Your task to perform on an android device: Open my contact list Image 0: 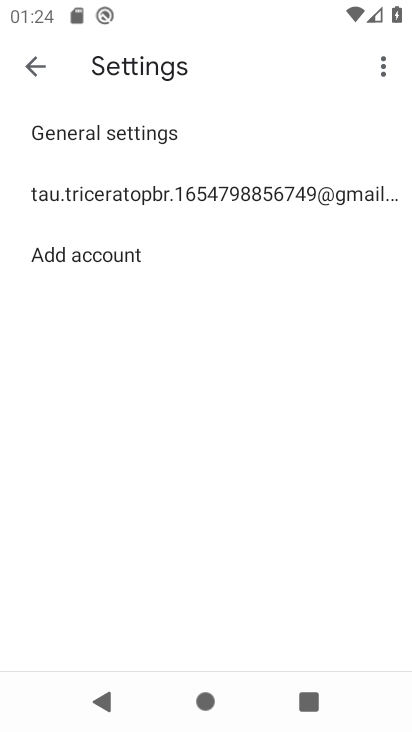
Step 0: press home button
Your task to perform on an android device: Open my contact list Image 1: 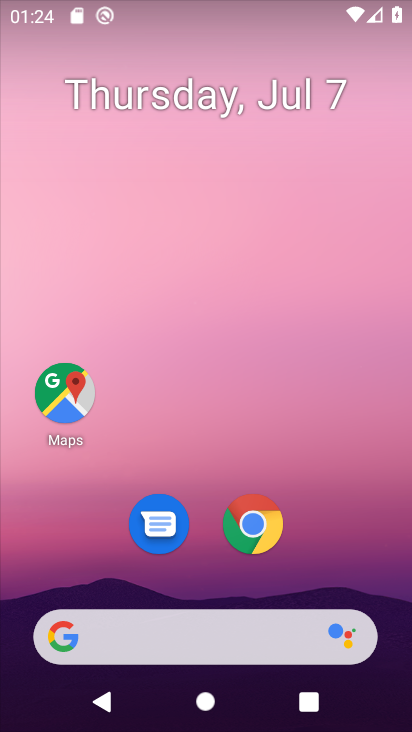
Step 1: drag from (362, 538) to (328, 60)
Your task to perform on an android device: Open my contact list Image 2: 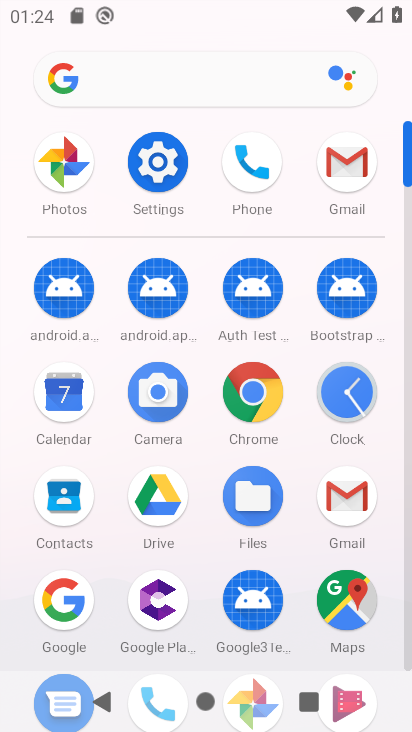
Step 2: click (57, 495)
Your task to perform on an android device: Open my contact list Image 3: 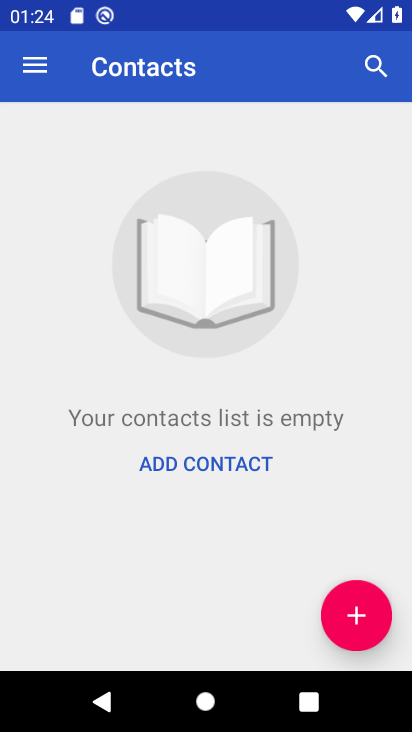
Step 3: task complete